Your task to perform on an android device: Open eBay Image 0: 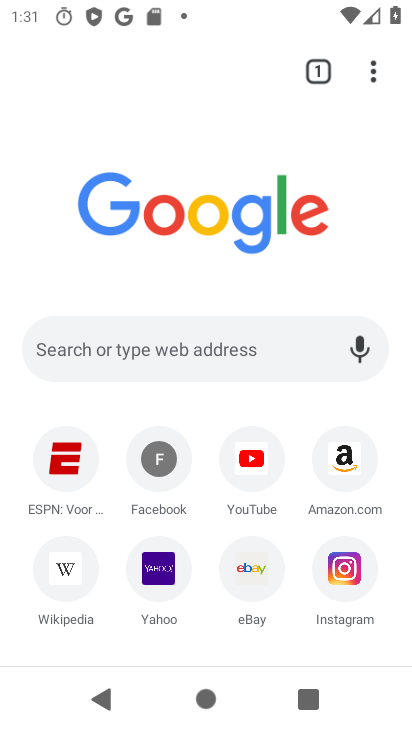
Step 0: press home button
Your task to perform on an android device: Open eBay Image 1: 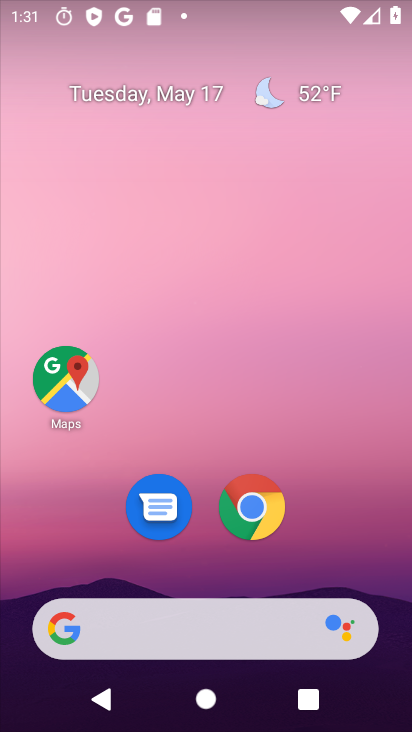
Step 1: drag from (210, 500) to (169, 112)
Your task to perform on an android device: Open eBay Image 2: 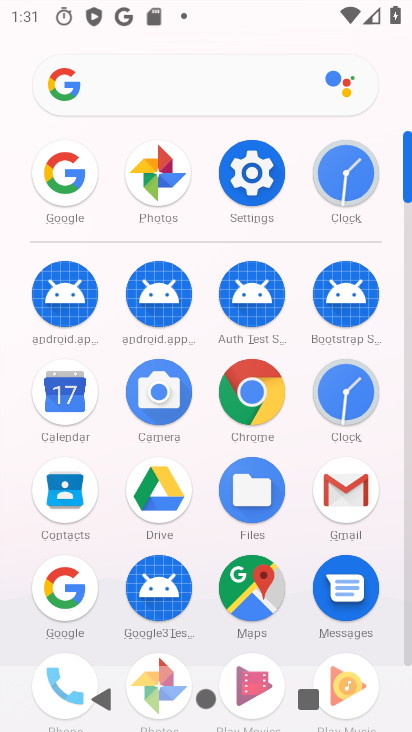
Step 2: click (66, 588)
Your task to perform on an android device: Open eBay Image 3: 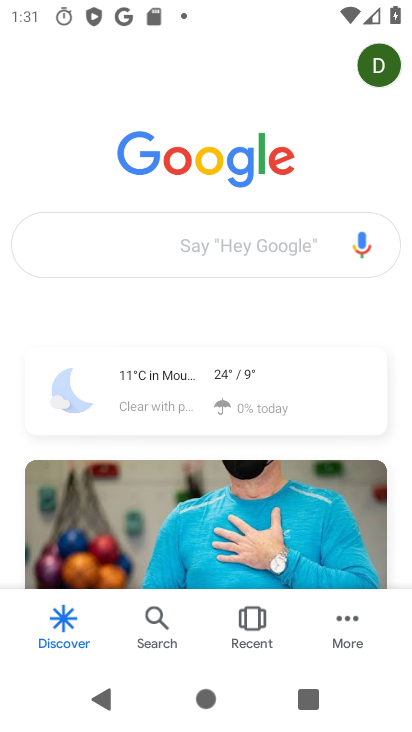
Step 3: click (183, 236)
Your task to perform on an android device: Open eBay Image 4: 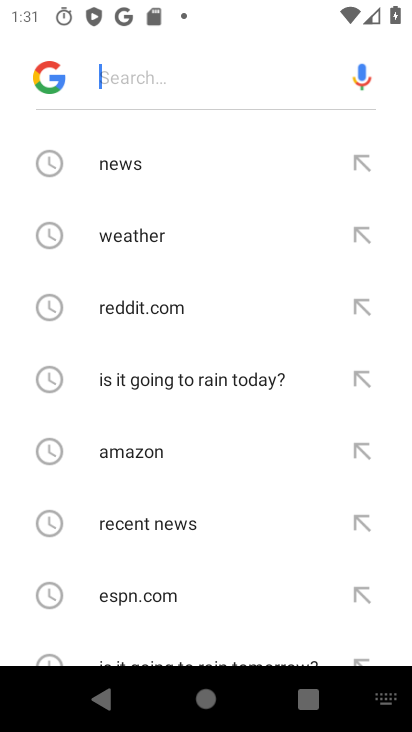
Step 4: drag from (181, 518) to (206, 245)
Your task to perform on an android device: Open eBay Image 5: 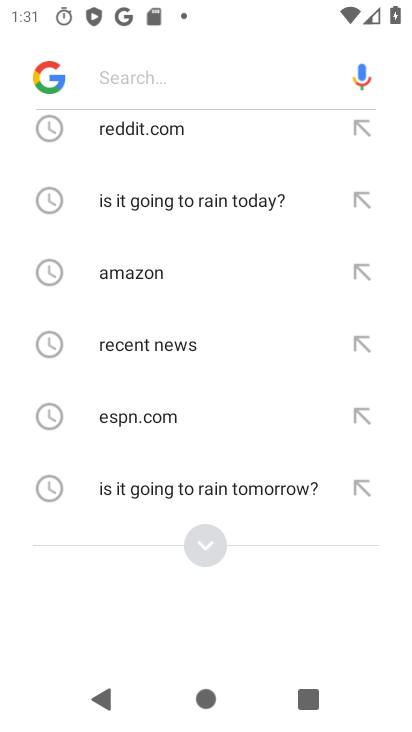
Step 5: type "ebay"
Your task to perform on an android device: Open eBay Image 6: 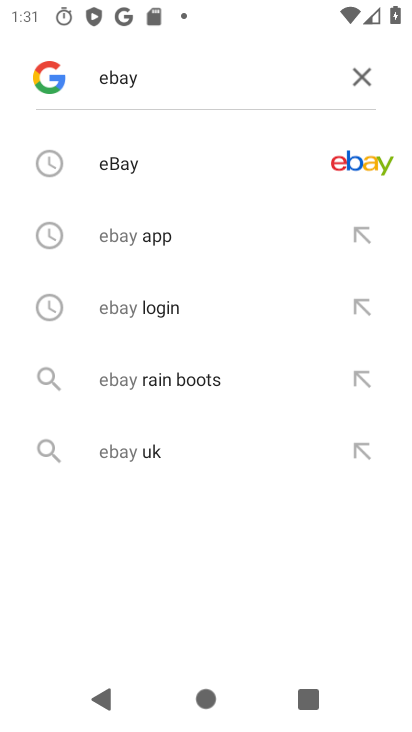
Step 6: click (163, 165)
Your task to perform on an android device: Open eBay Image 7: 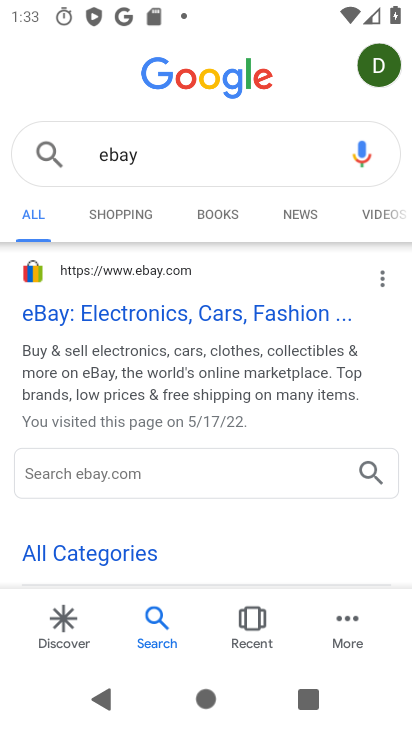
Step 7: task complete